Your task to perform on an android device: Open my contact list Image 0: 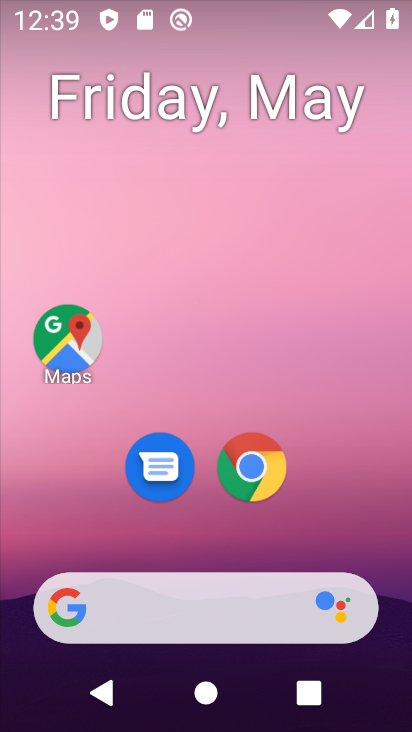
Step 0: drag from (406, 653) to (398, 488)
Your task to perform on an android device: Open my contact list Image 1: 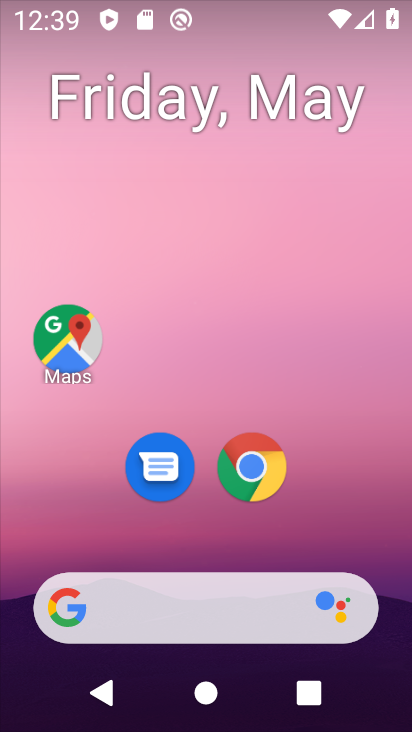
Step 1: drag from (402, 577) to (360, 126)
Your task to perform on an android device: Open my contact list Image 2: 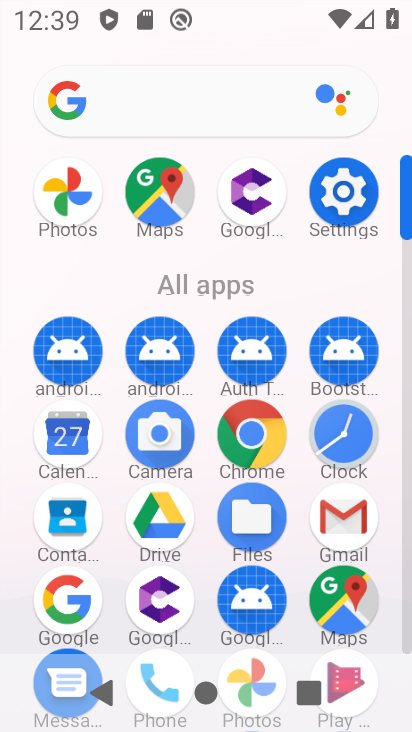
Step 2: click (408, 645)
Your task to perform on an android device: Open my contact list Image 3: 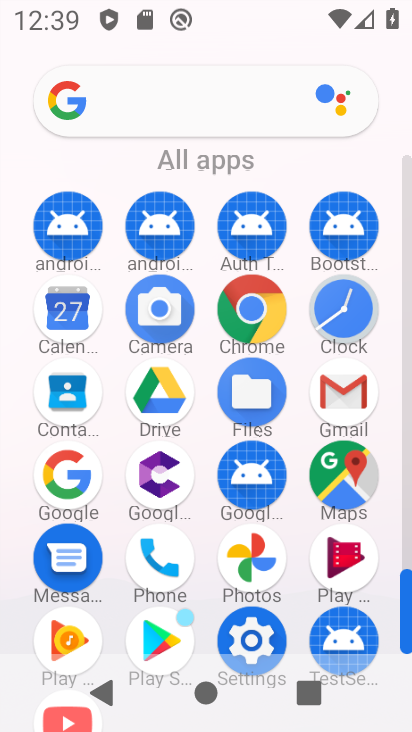
Step 3: click (65, 394)
Your task to perform on an android device: Open my contact list Image 4: 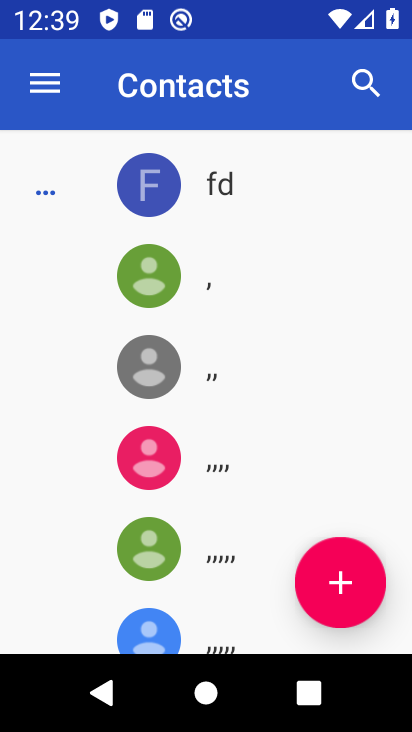
Step 4: task complete